Your task to perform on an android device: Clear the cart on amazon.com. Add razer thresher to the cart on amazon.com, then select checkout. Image 0: 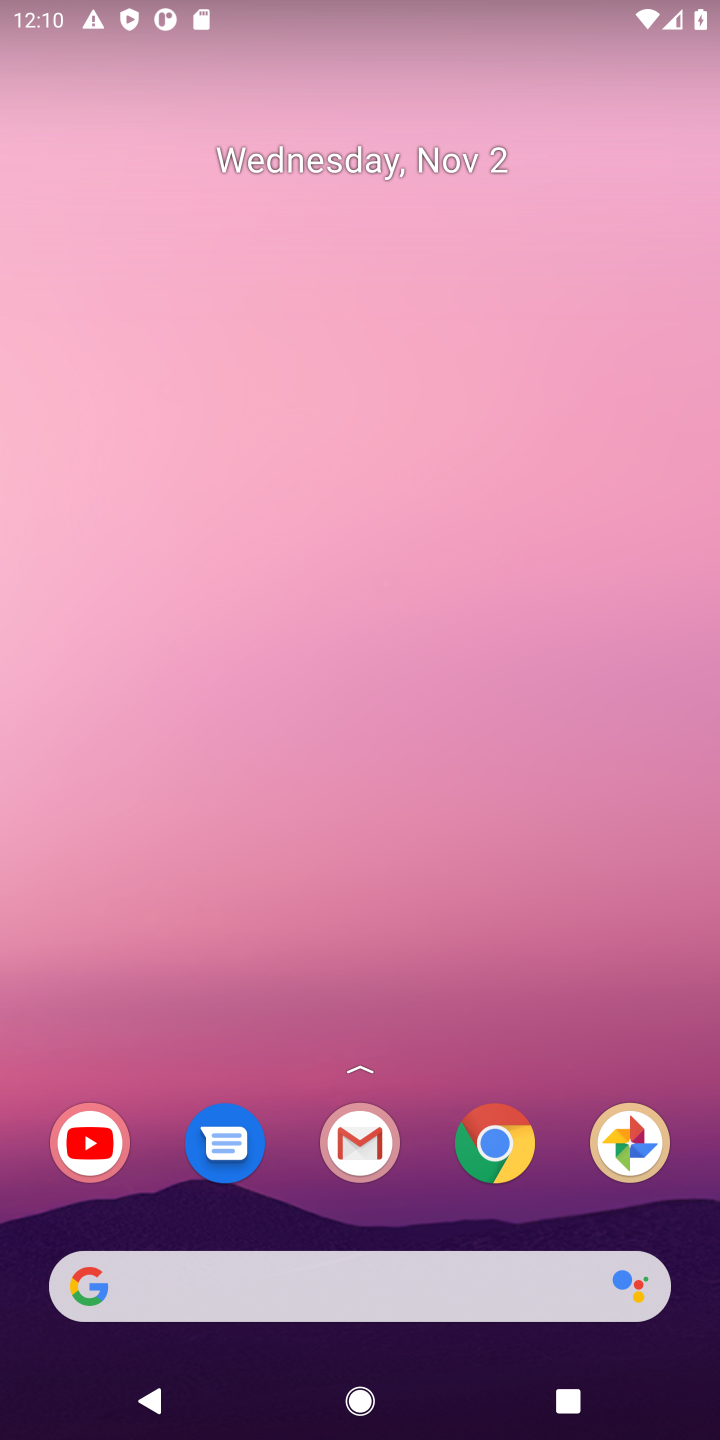
Step 0: press home button
Your task to perform on an android device: Clear the cart on amazon.com. Add razer thresher to the cart on amazon.com, then select checkout. Image 1: 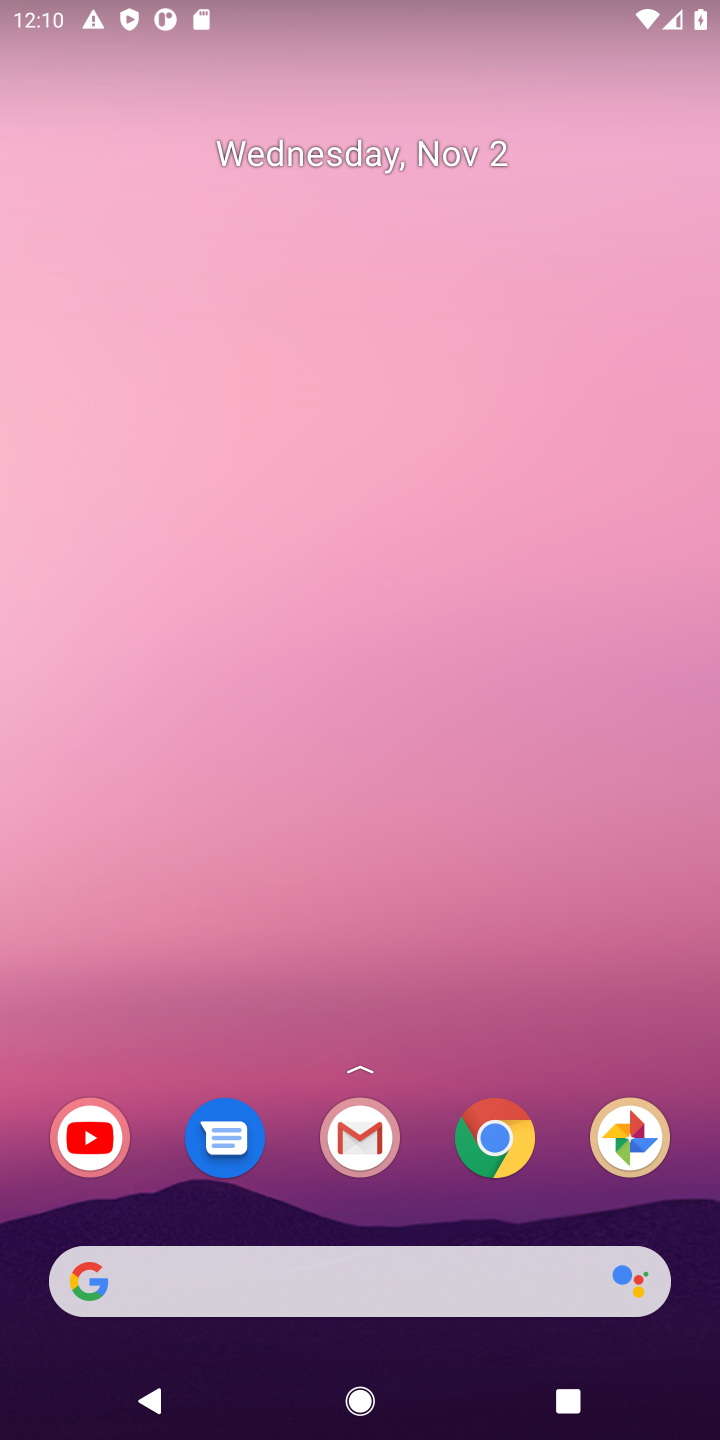
Step 1: click (155, 1277)
Your task to perform on an android device: Clear the cart on amazon.com. Add razer thresher to the cart on amazon.com, then select checkout. Image 2: 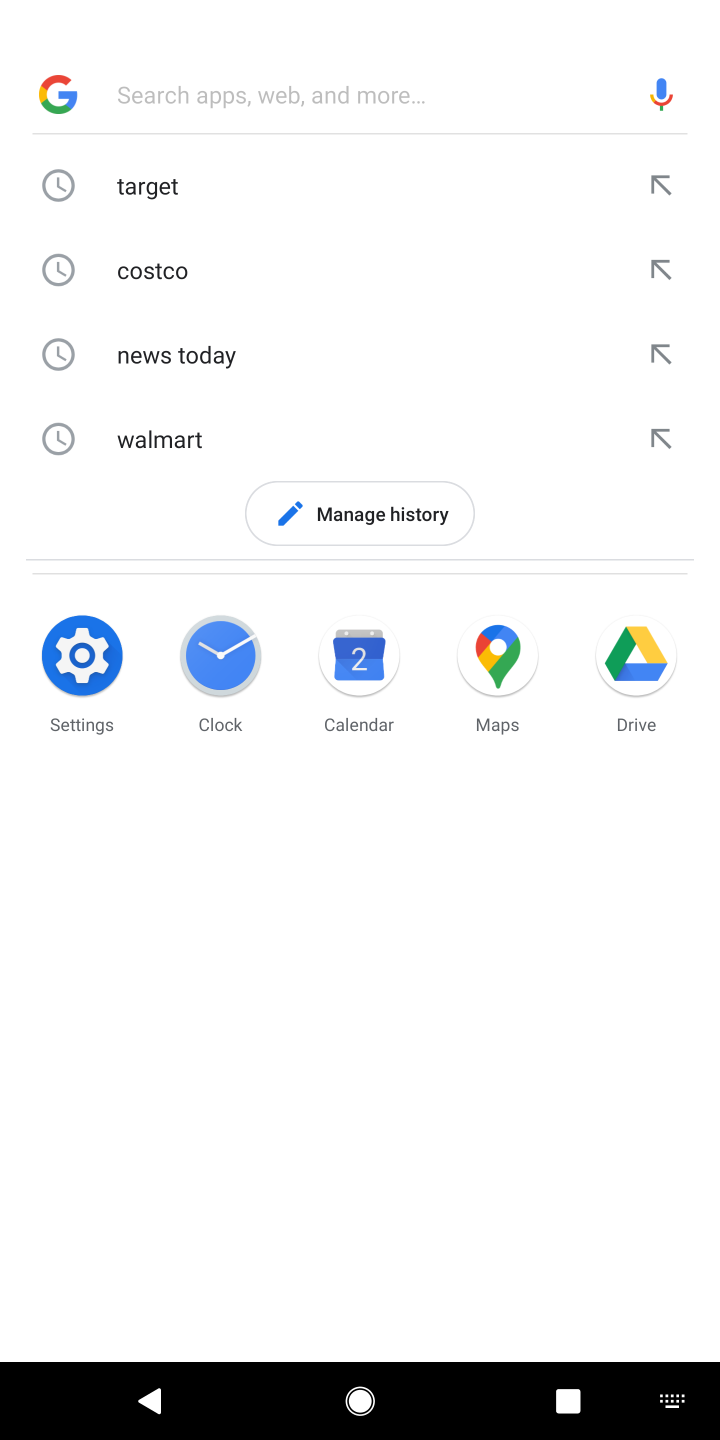
Step 2: press enter
Your task to perform on an android device: Clear the cart on amazon.com. Add razer thresher to the cart on amazon.com, then select checkout. Image 3: 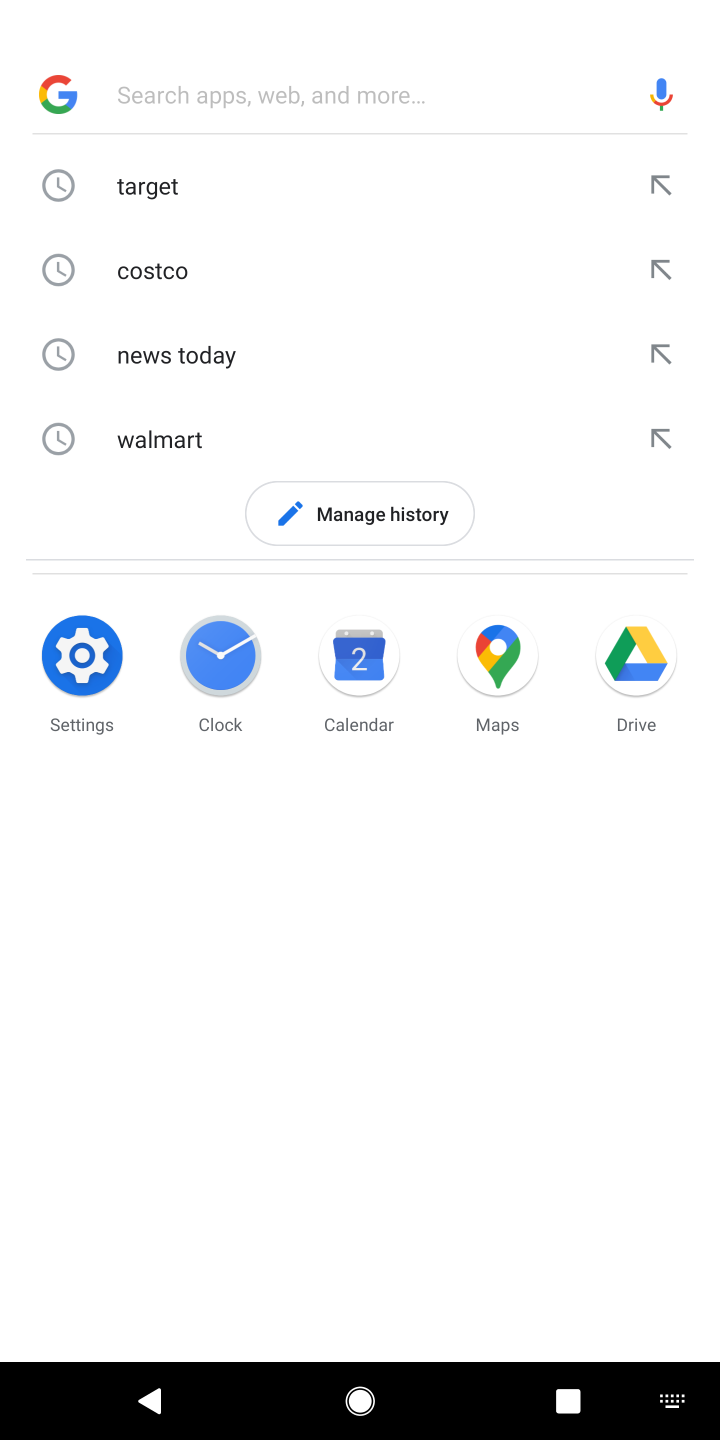
Step 3: type "amazon.com"
Your task to perform on an android device: Clear the cart on amazon.com. Add razer thresher to the cart on amazon.com, then select checkout. Image 4: 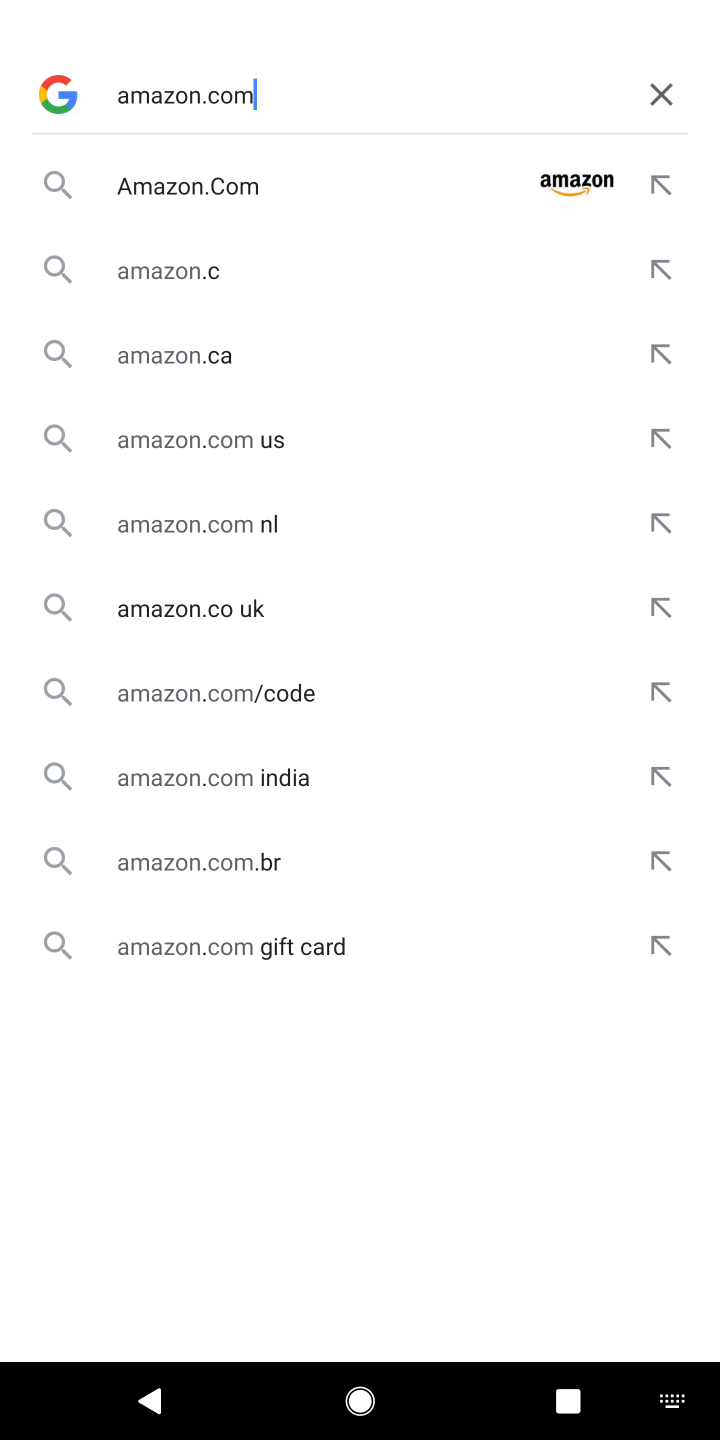
Step 4: press enter
Your task to perform on an android device: Clear the cart on amazon.com. Add razer thresher to the cart on amazon.com, then select checkout. Image 5: 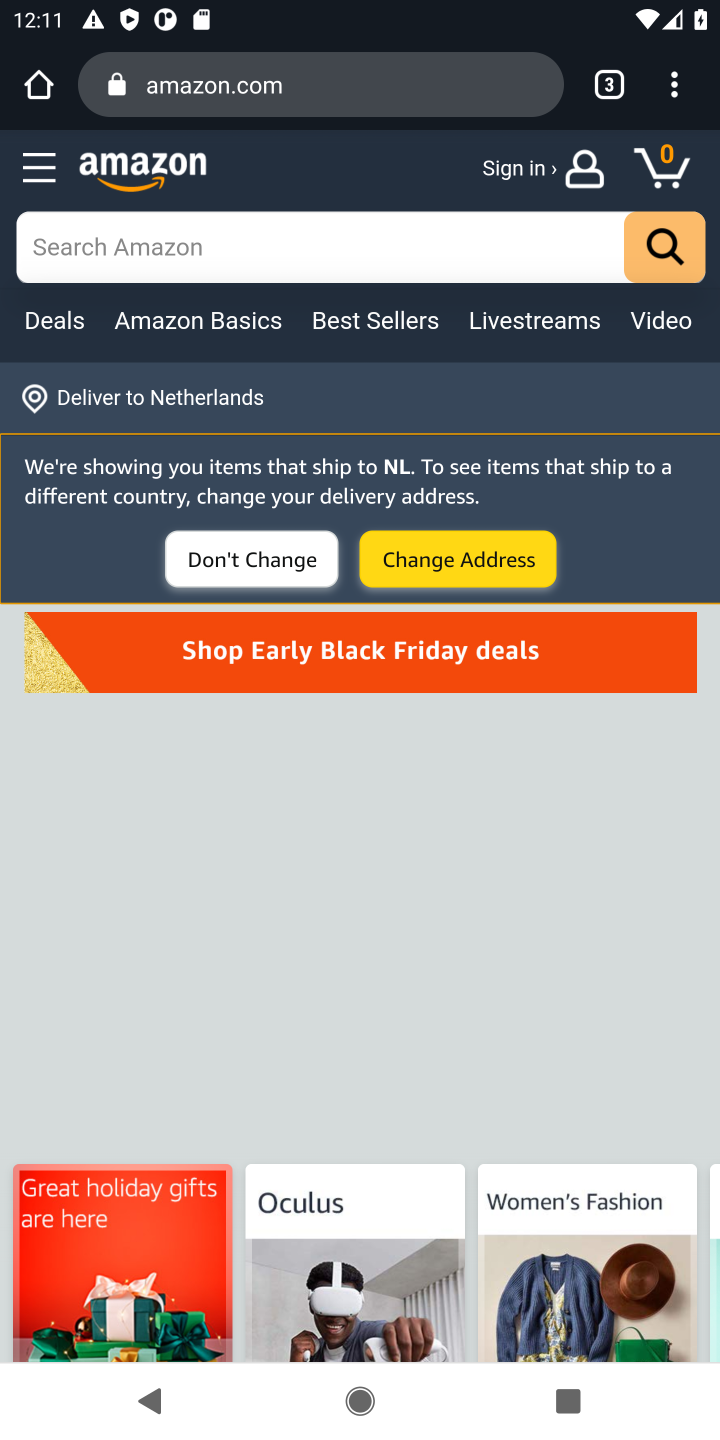
Step 5: click (669, 169)
Your task to perform on an android device: Clear the cart on amazon.com. Add razer thresher to the cart on amazon.com, then select checkout. Image 6: 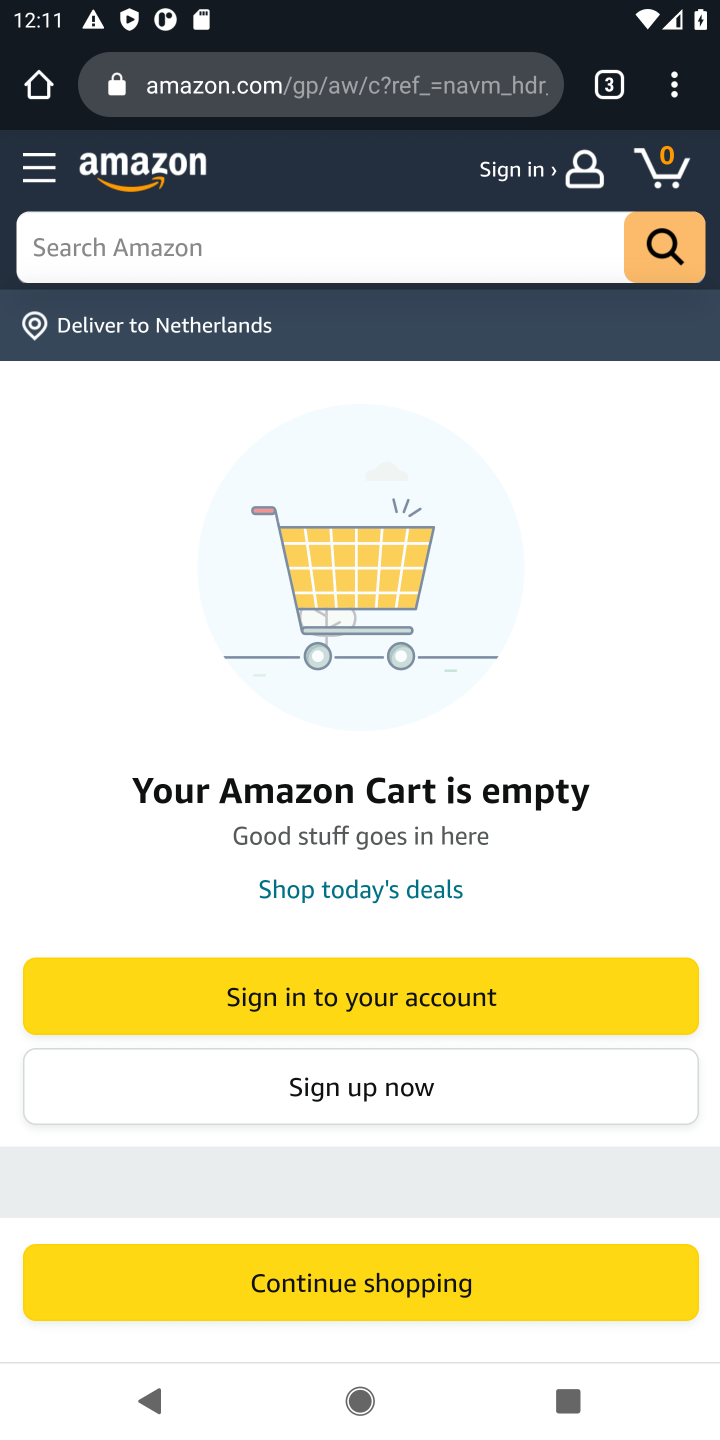
Step 6: click (64, 239)
Your task to perform on an android device: Clear the cart on amazon.com. Add razer thresher to the cart on amazon.com, then select checkout. Image 7: 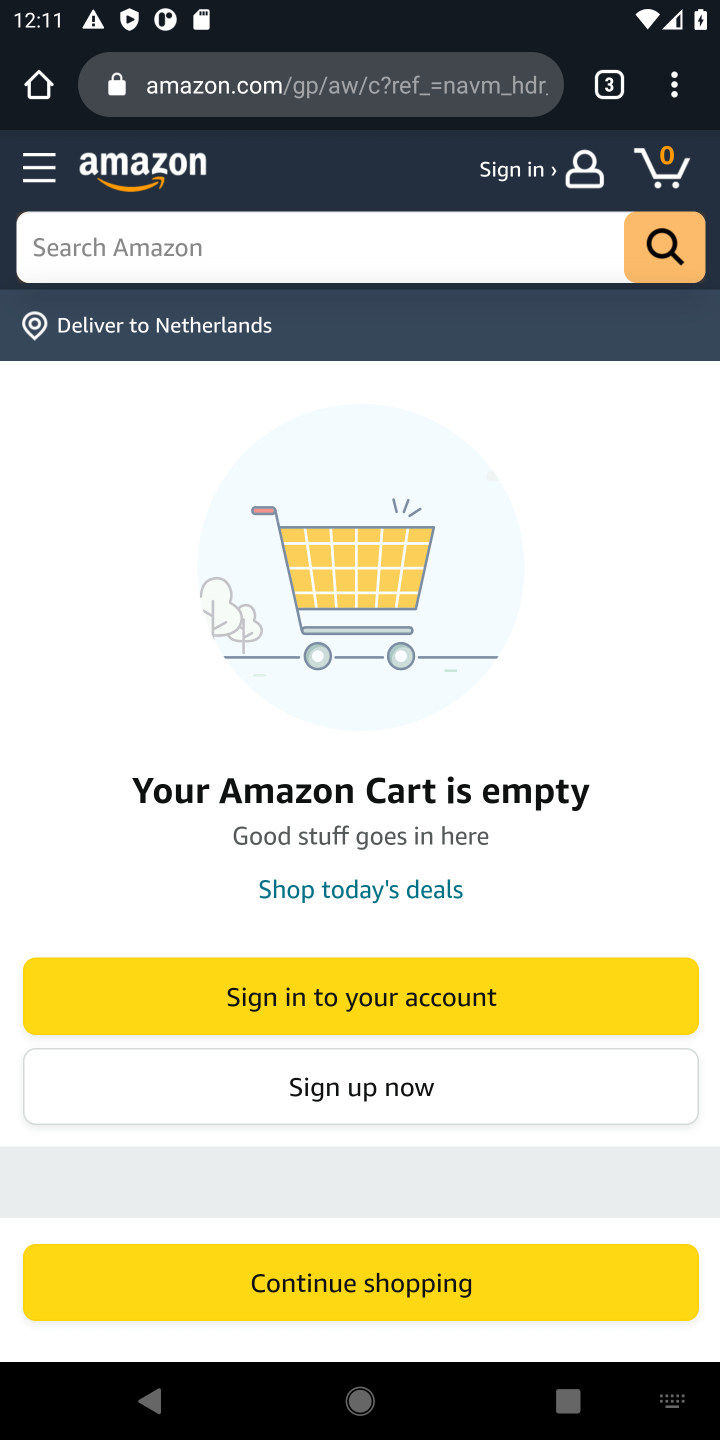
Step 7: type "razer thresher"
Your task to perform on an android device: Clear the cart on amazon.com. Add razer thresher to the cart on amazon.com, then select checkout. Image 8: 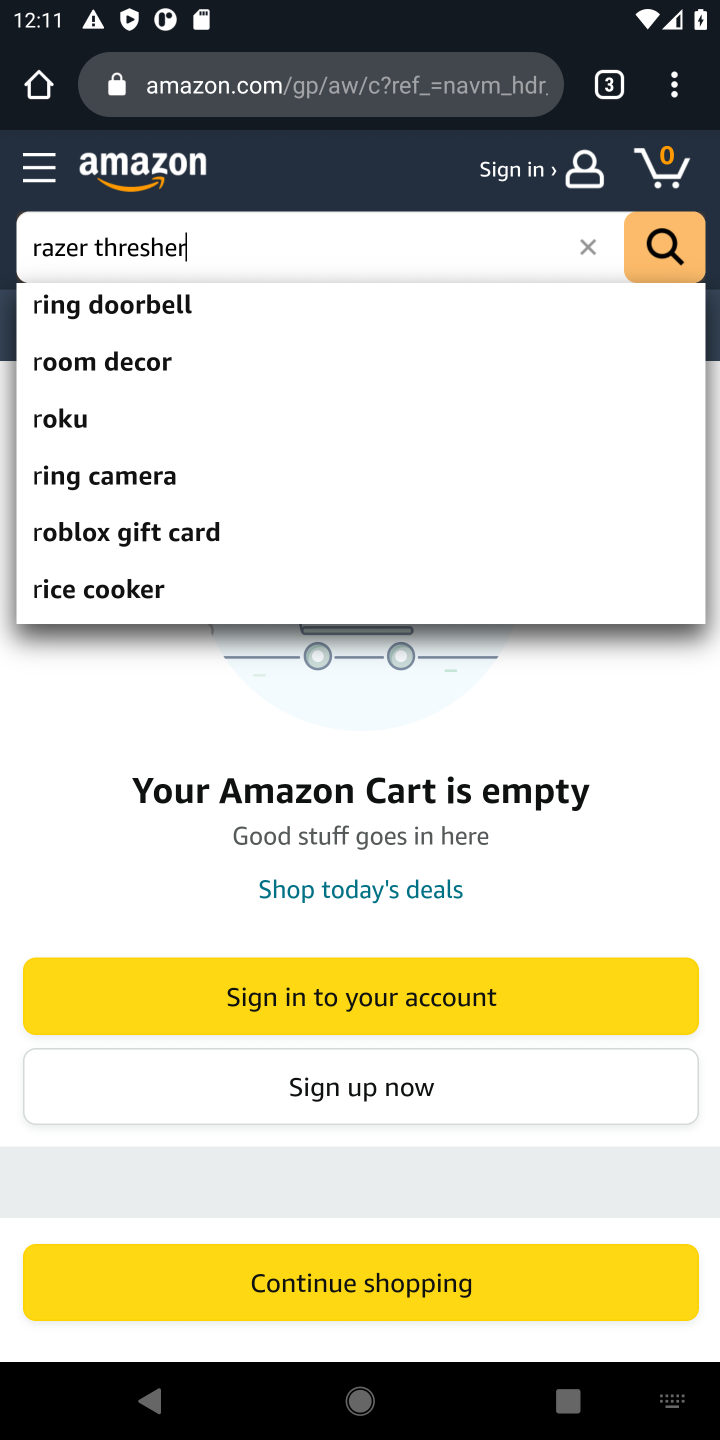
Step 8: press enter
Your task to perform on an android device: Clear the cart on amazon.com. Add razer thresher to the cart on amazon.com, then select checkout. Image 9: 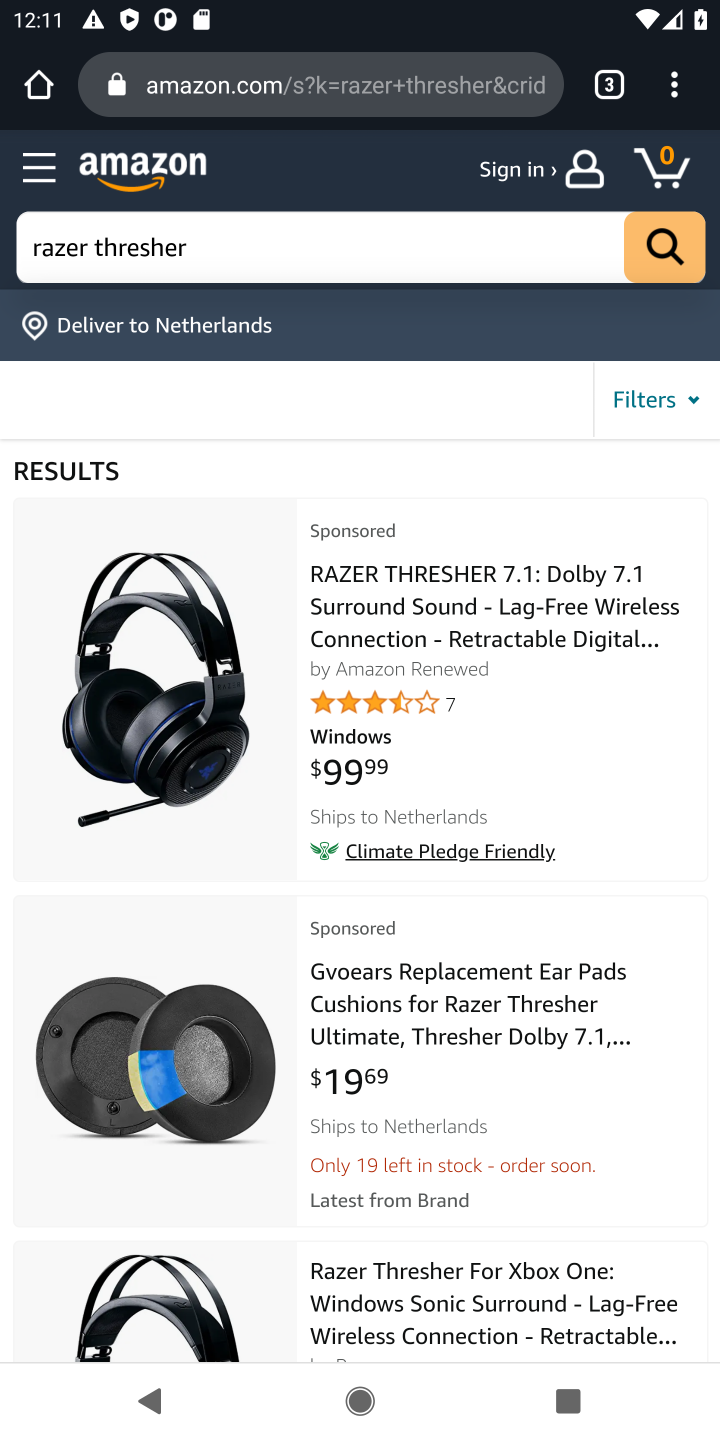
Step 9: click (477, 594)
Your task to perform on an android device: Clear the cart on amazon.com. Add razer thresher to the cart on amazon.com, then select checkout. Image 10: 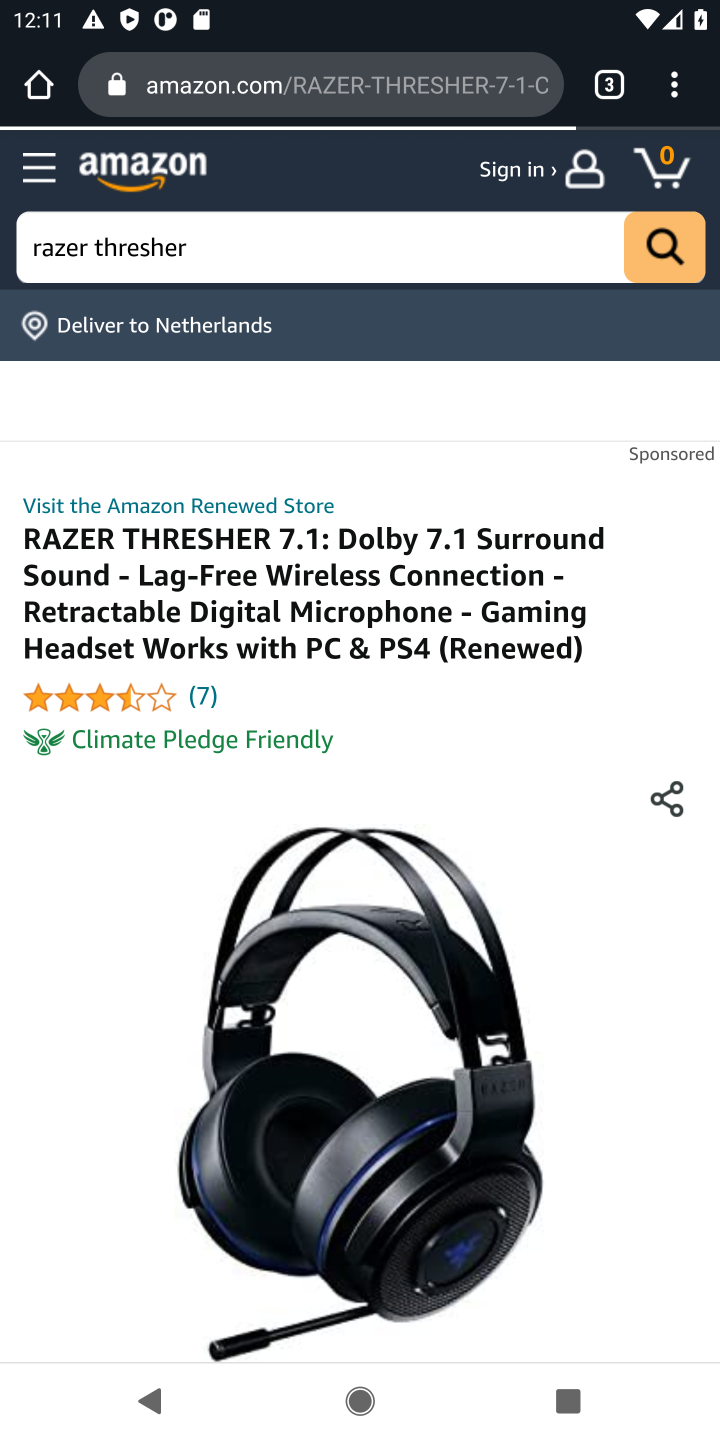
Step 10: drag from (397, 1057) to (391, 532)
Your task to perform on an android device: Clear the cart on amazon.com. Add razer thresher to the cart on amazon.com, then select checkout. Image 11: 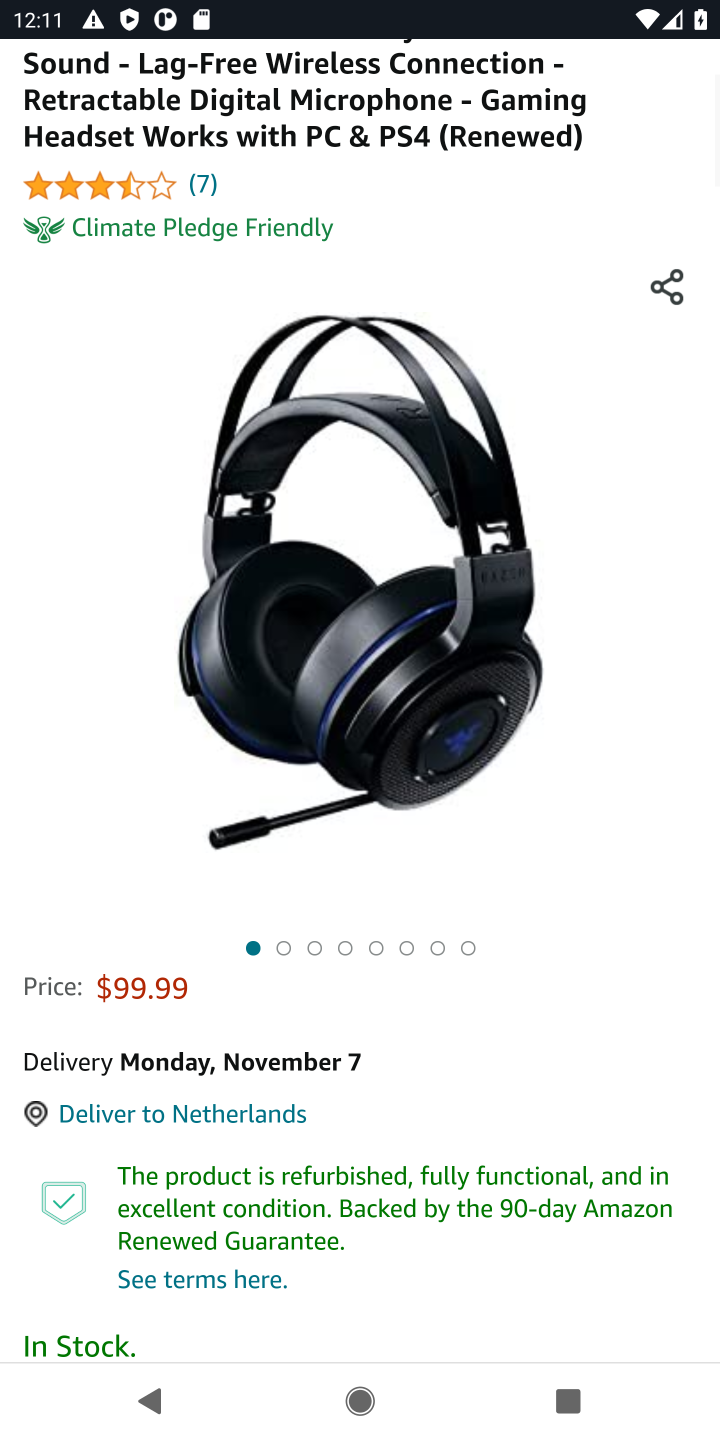
Step 11: drag from (333, 1075) to (316, 349)
Your task to perform on an android device: Clear the cart on amazon.com. Add razer thresher to the cart on amazon.com, then select checkout. Image 12: 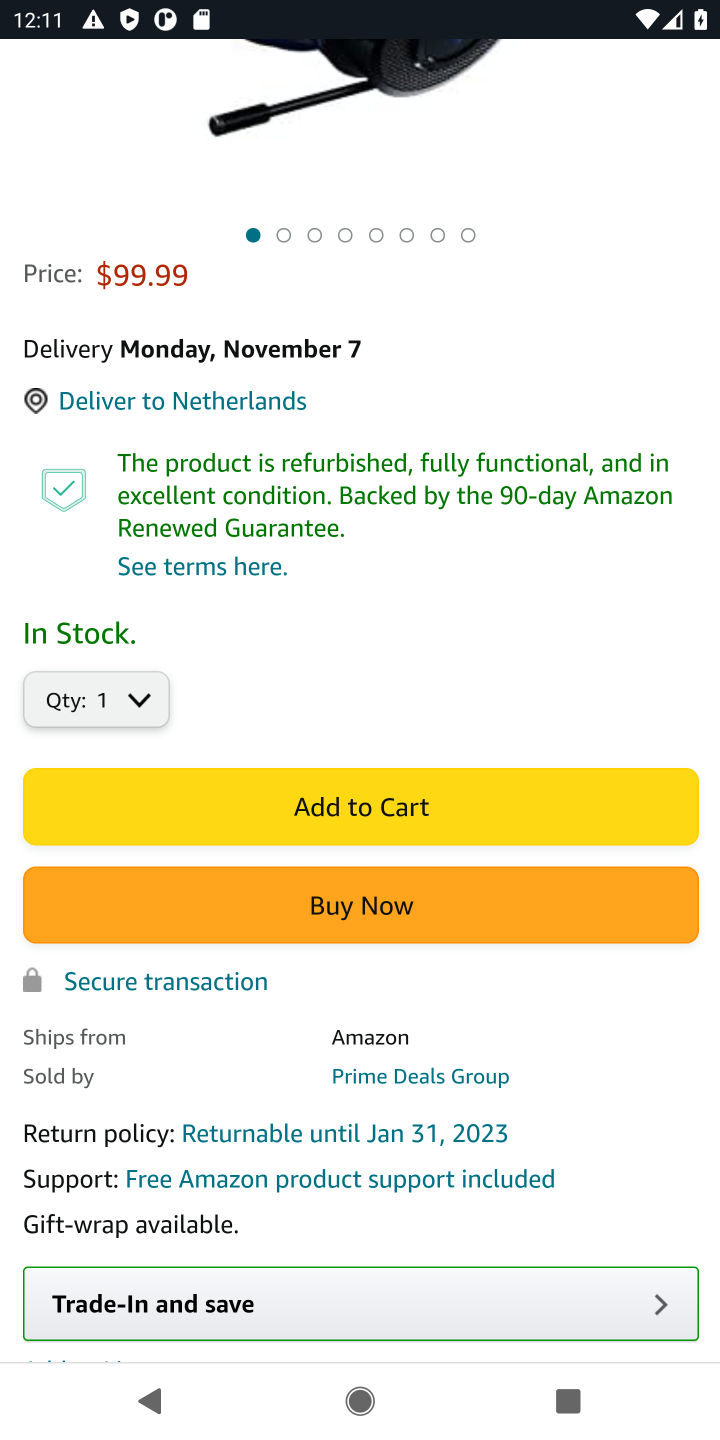
Step 12: click (349, 794)
Your task to perform on an android device: Clear the cart on amazon.com. Add razer thresher to the cart on amazon.com, then select checkout. Image 13: 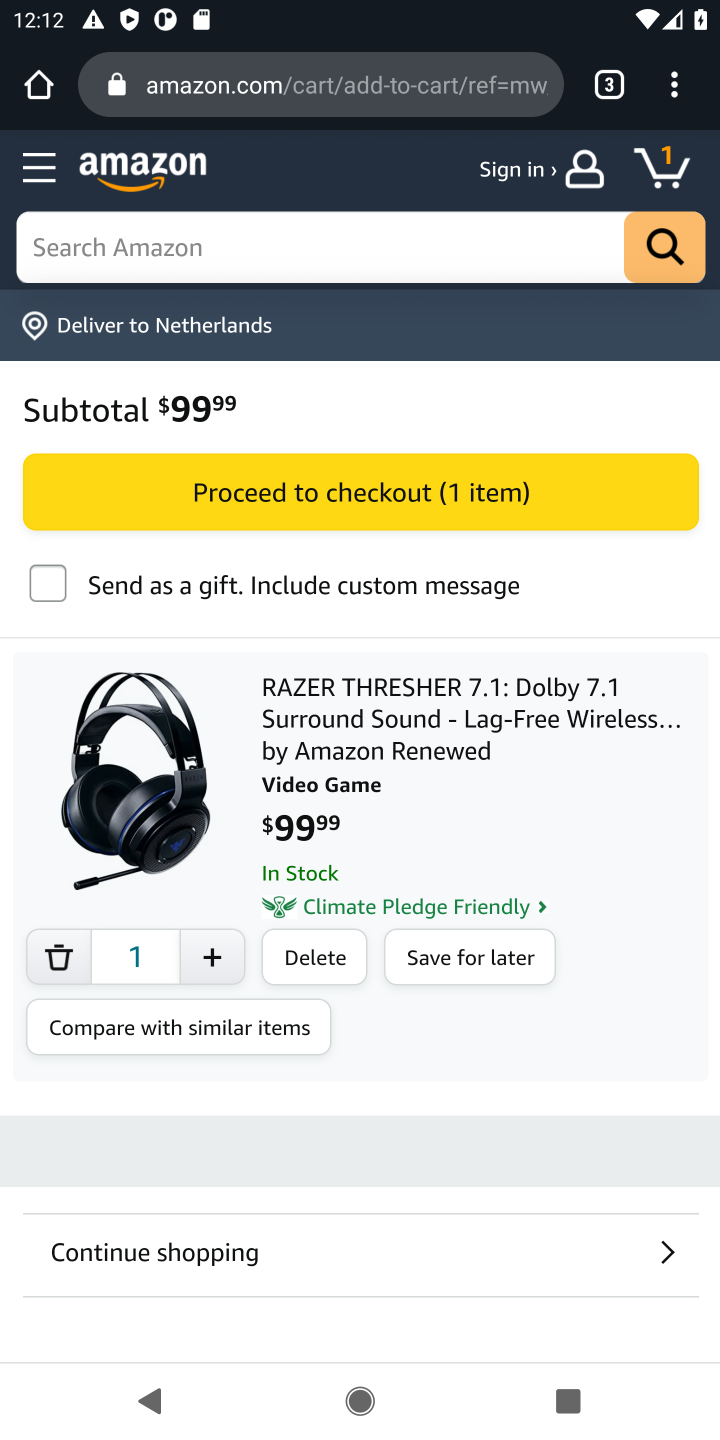
Step 13: click (454, 498)
Your task to perform on an android device: Clear the cart on amazon.com. Add razer thresher to the cart on amazon.com, then select checkout. Image 14: 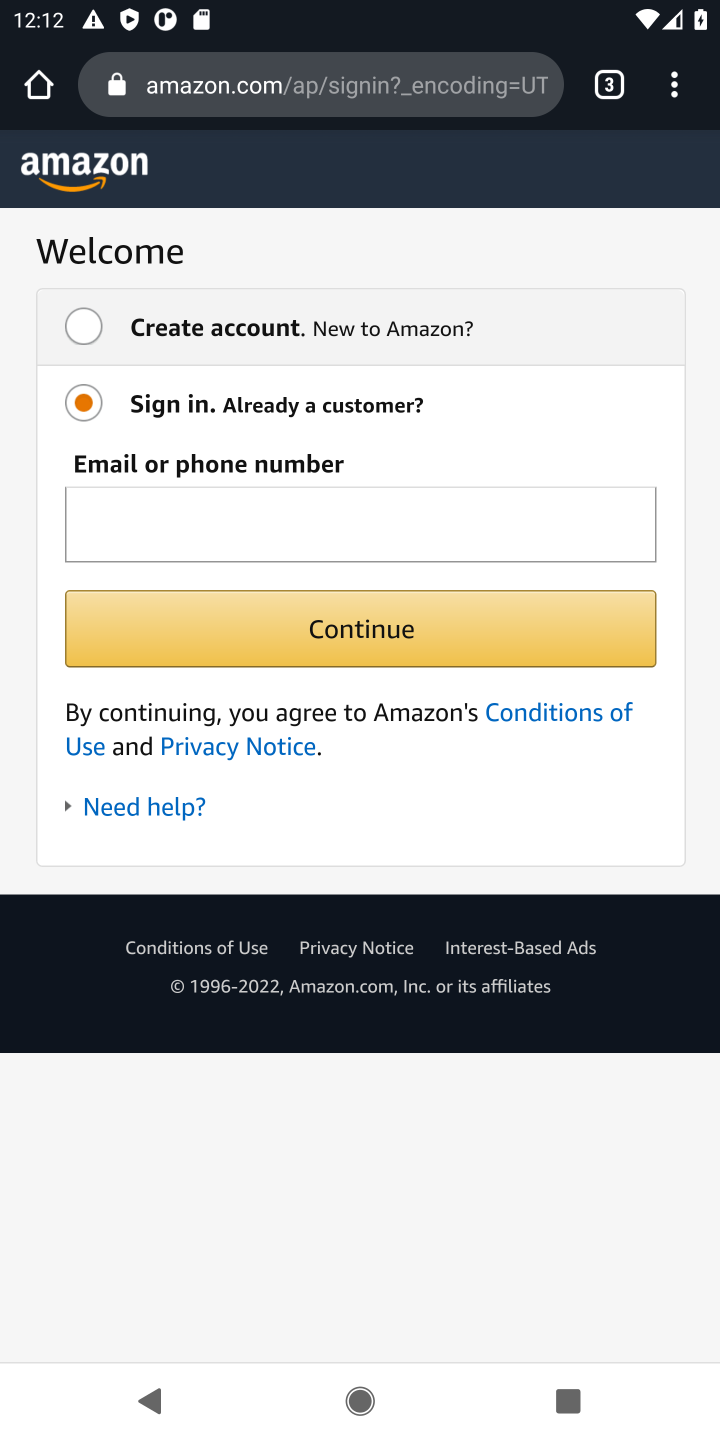
Step 14: task complete